Your task to perform on an android device: toggle translation in the chrome app Image 0: 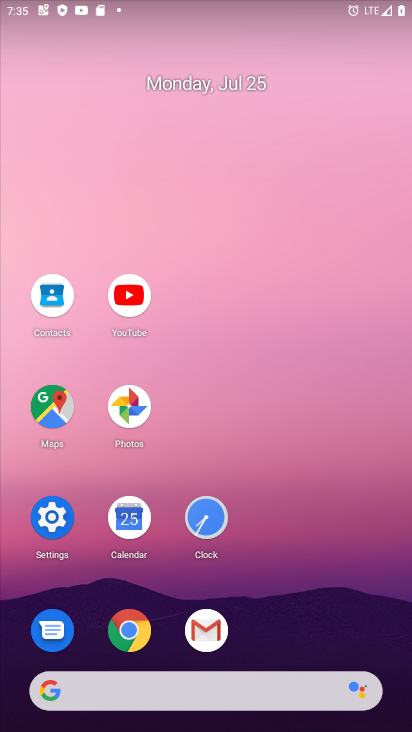
Step 0: click (125, 632)
Your task to perform on an android device: toggle translation in the chrome app Image 1: 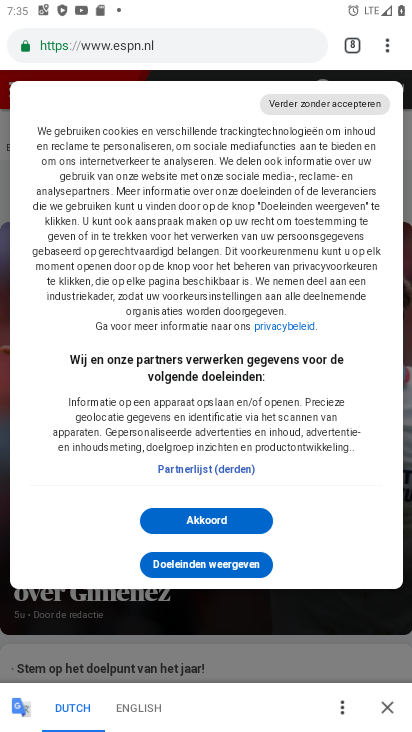
Step 1: click (385, 41)
Your task to perform on an android device: toggle translation in the chrome app Image 2: 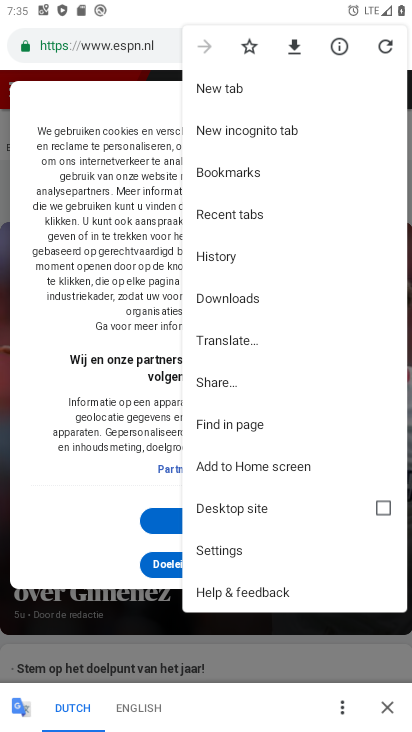
Step 2: click (230, 552)
Your task to perform on an android device: toggle translation in the chrome app Image 3: 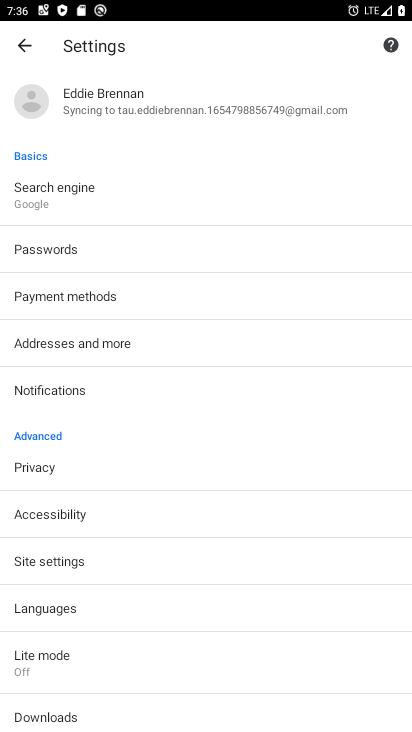
Step 3: click (53, 607)
Your task to perform on an android device: toggle translation in the chrome app Image 4: 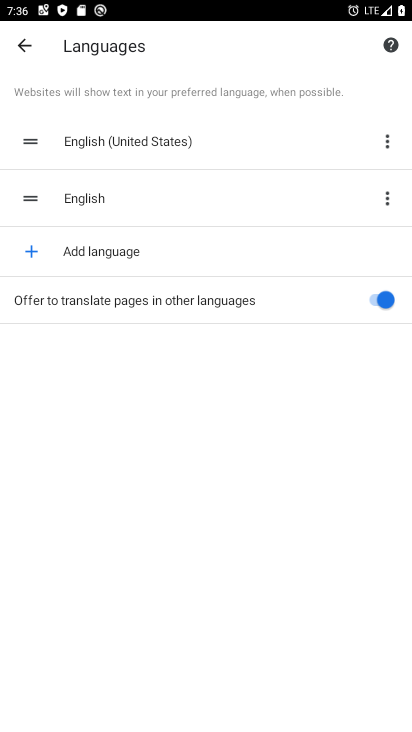
Step 4: click (380, 298)
Your task to perform on an android device: toggle translation in the chrome app Image 5: 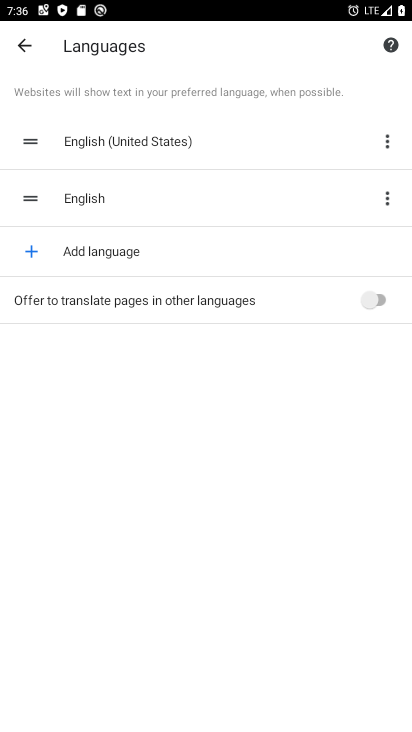
Step 5: task complete